Your task to perform on an android device: Open Chrome and go to settings Image 0: 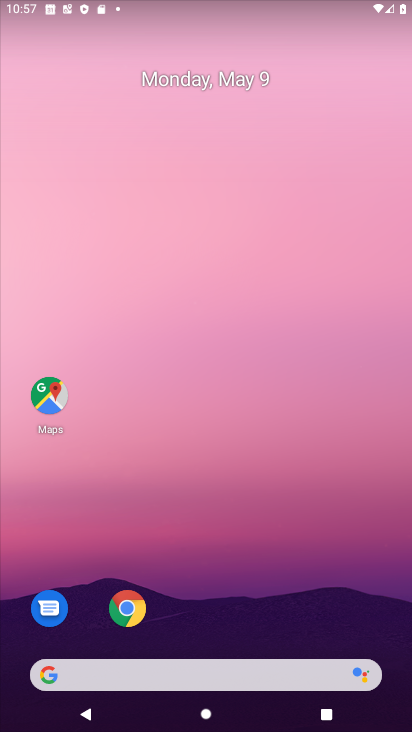
Step 0: click (131, 609)
Your task to perform on an android device: Open Chrome and go to settings Image 1: 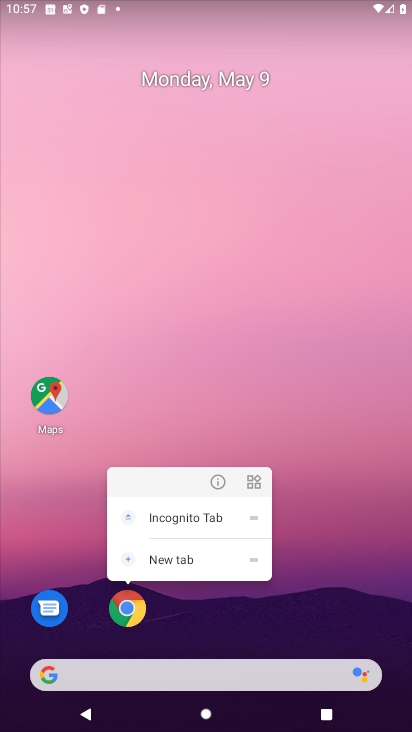
Step 1: click (139, 615)
Your task to perform on an android device: Open Chrome and go to settings Image 2: 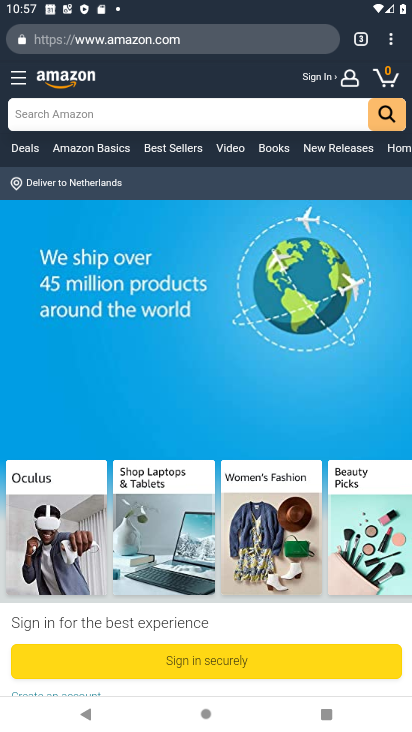
Step 2: task complete